Your task to perform on an android device: Search for "asus zenbook" on walmart, select the first entry, add it to the cart, then select checkout. Image 0: 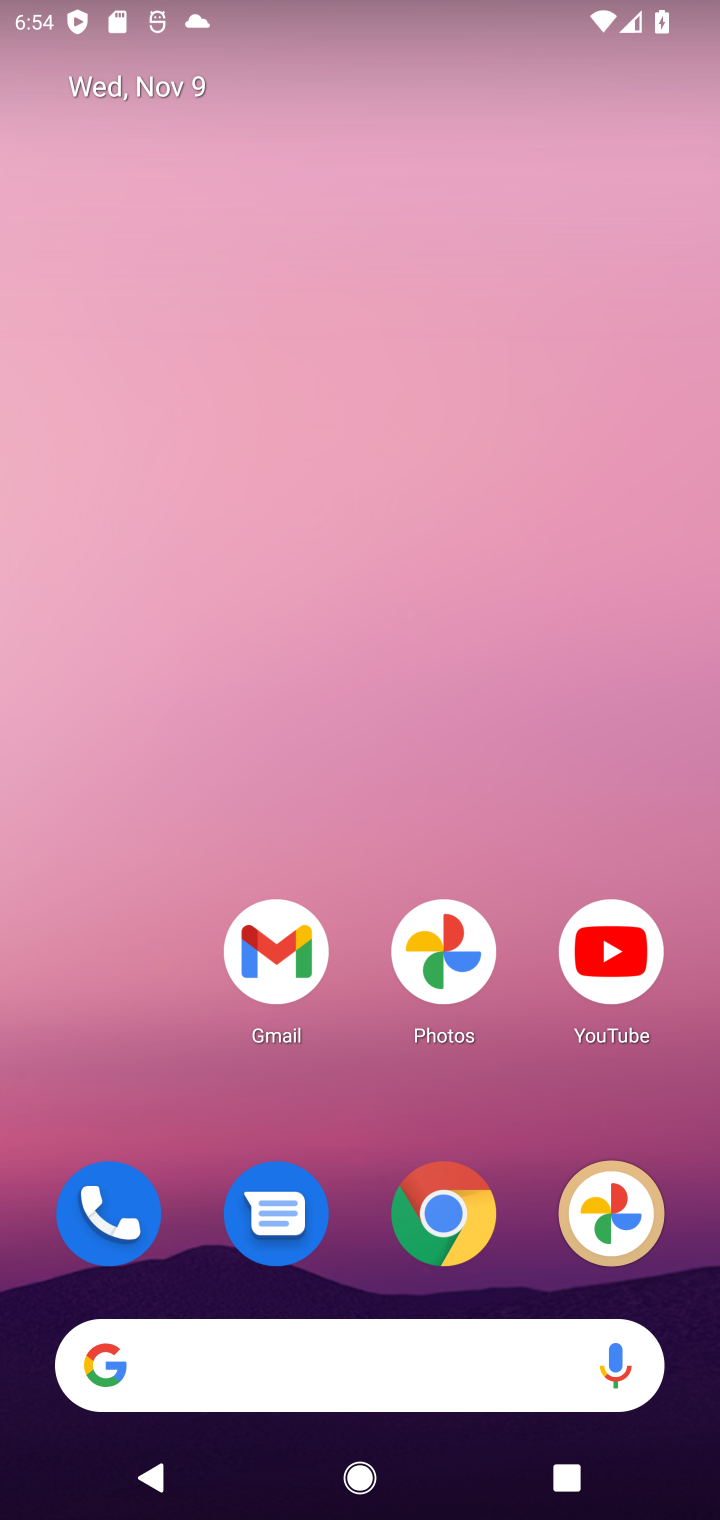
Step 0: click (467, 1234)
Your task to perform on an android device: Search for "asus zenbook" on walmart, select the first entry, add it to the cart, then select checkout. Image 1: 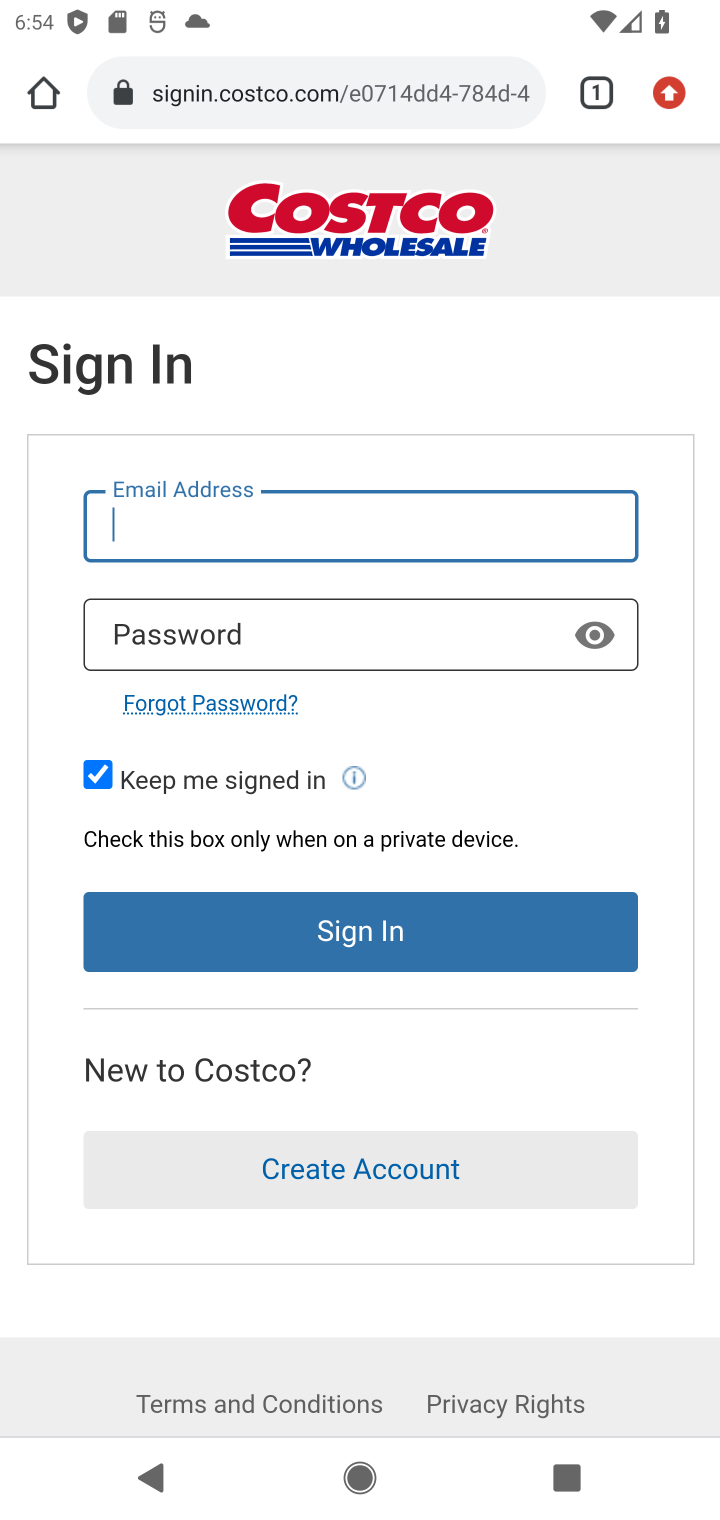
Step 1: click (260, 72)
Your task to perform on an android device: Search for "asus zenbook" on walmart, select the first entry, add it to the cart, then select checkout. Image 2: 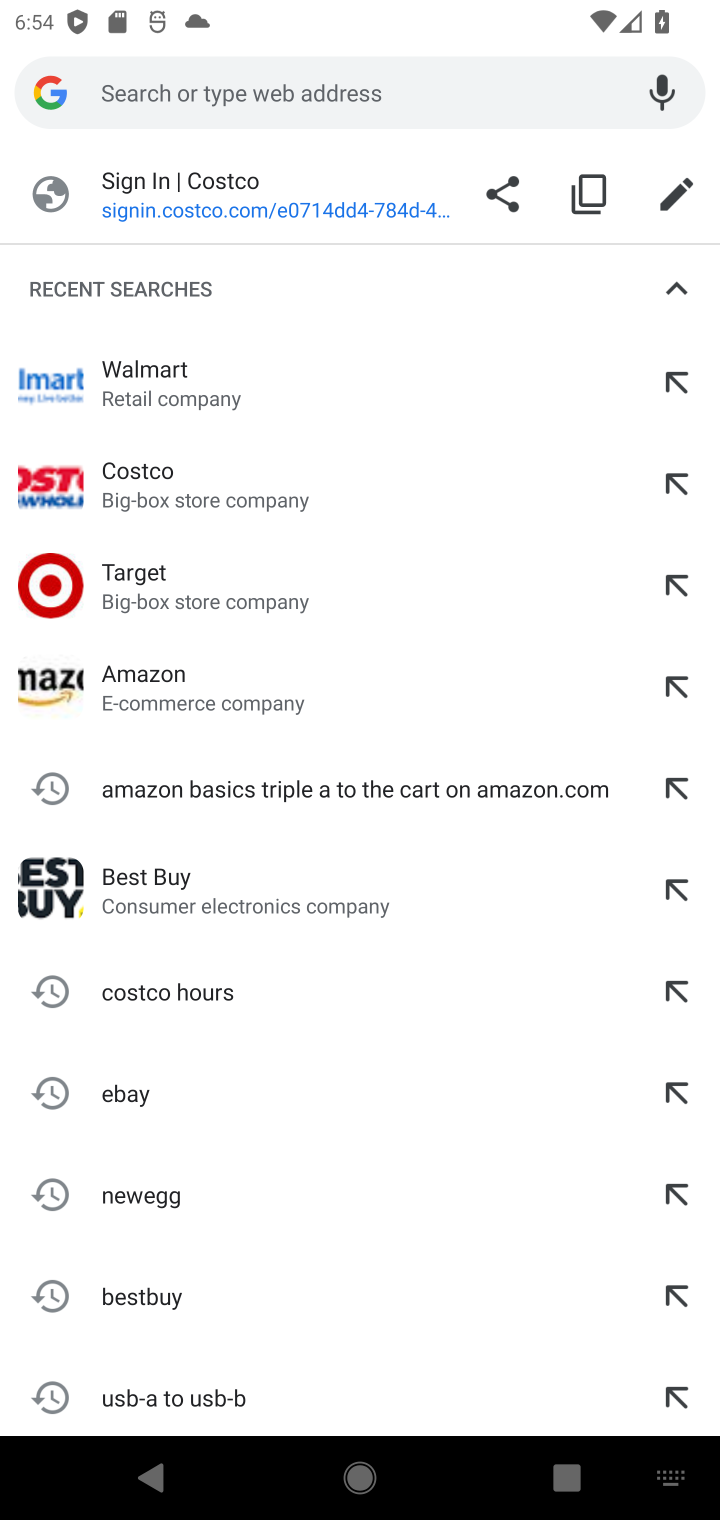
Step 2: type "wal"
Your task to perform on an android device: Search for "asus zenbook" on walmart, select the first entry, add it to the cart, then select checkout. Image 3: 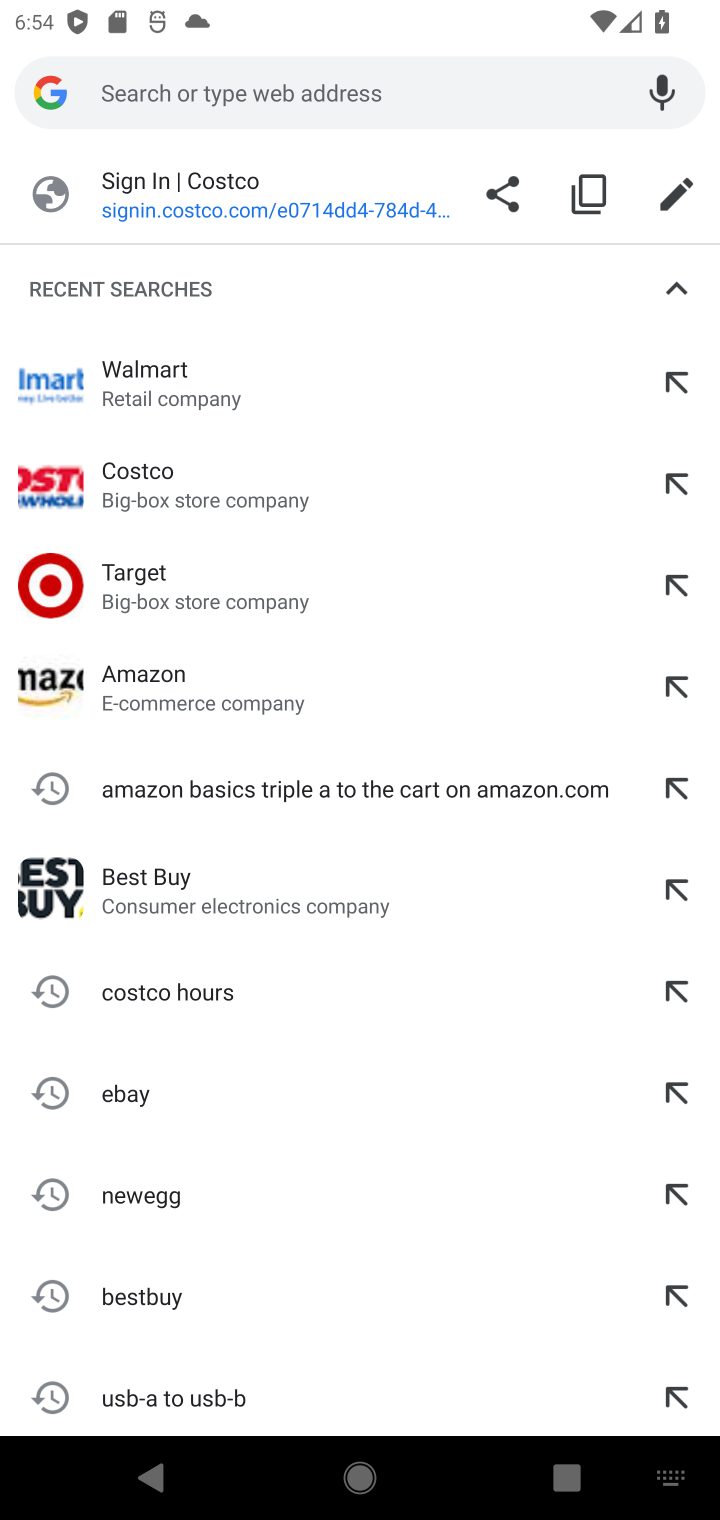
Step 3: click (139, 377)
Your task to perform on an android device: Search for "asus zenbook" on walmart, select the first entry, add it to the cart, then select checkout. Image 4: 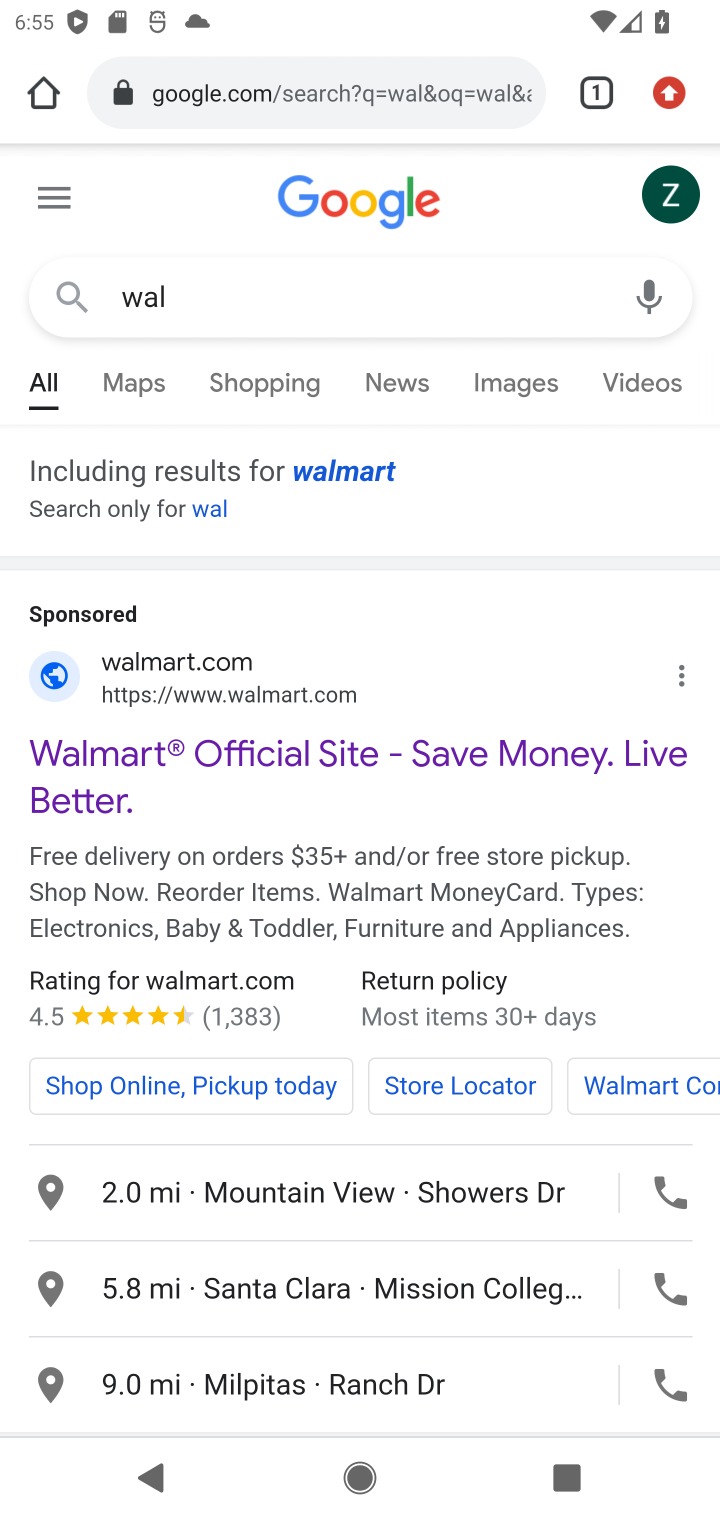
Step 4: drag from (268, 813) to (313, 231)
Your task to perform on an android device: Search for "asus zenbook" on walmart, select the first entry, add it to the cart, then select checkout. Image 5: 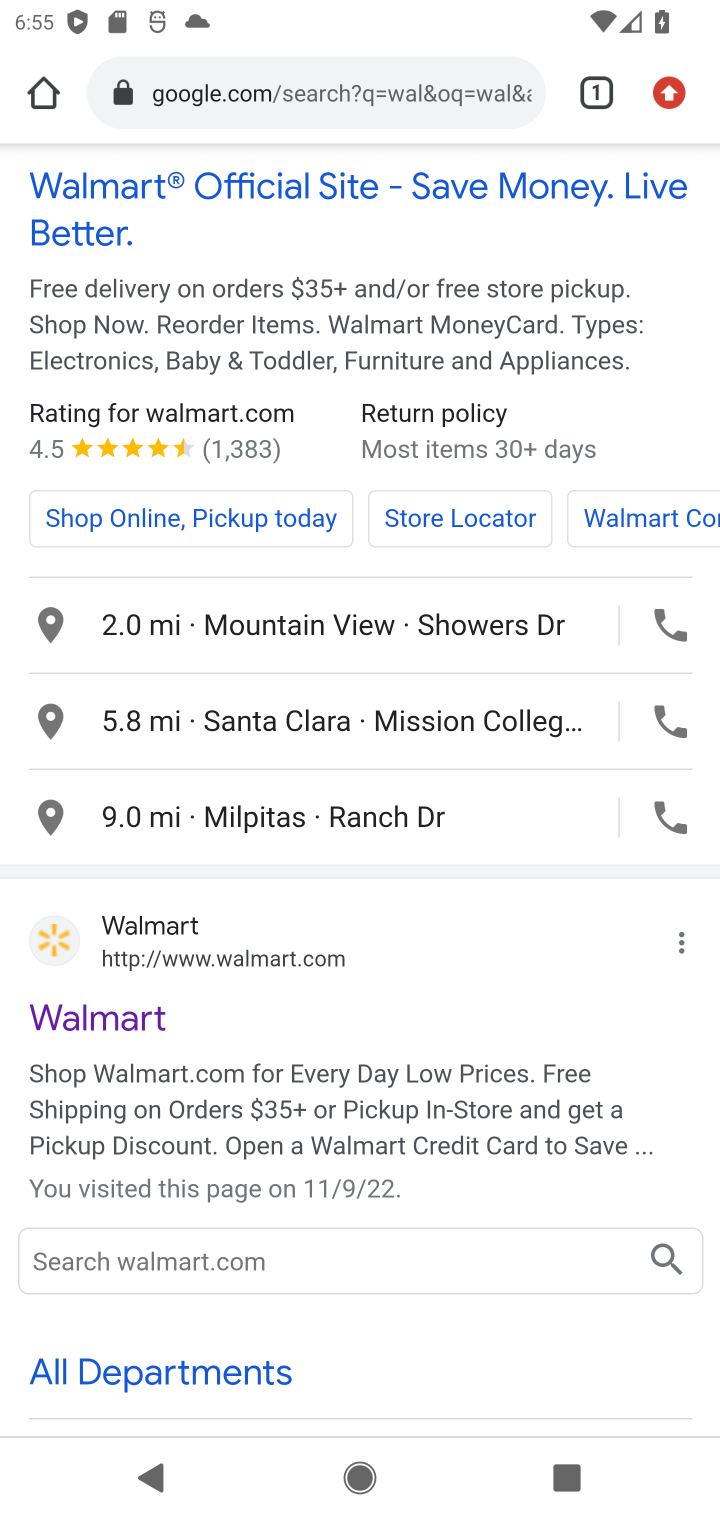
Step 5: click (124, 1006)
Your task to perform on an android device: Search for "asus zenbook" on walmart, select the first entry, add it to the cart, then select checkout. Image 6: 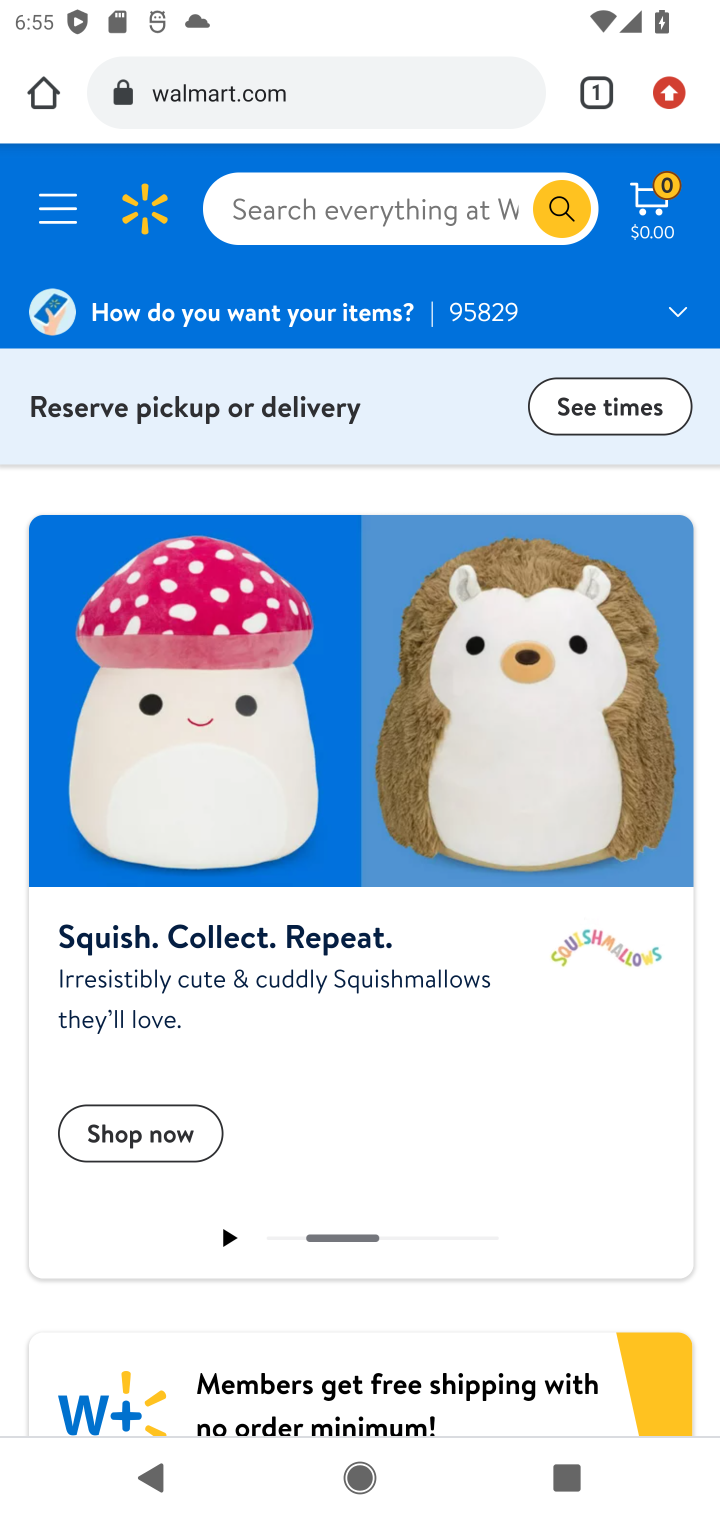
Step 6: click (358, 221)
Your task to perform on an android device: Search for "asus zenbook" on walmart, select the first entry, add it to the cart, then select checkout. Image 7: 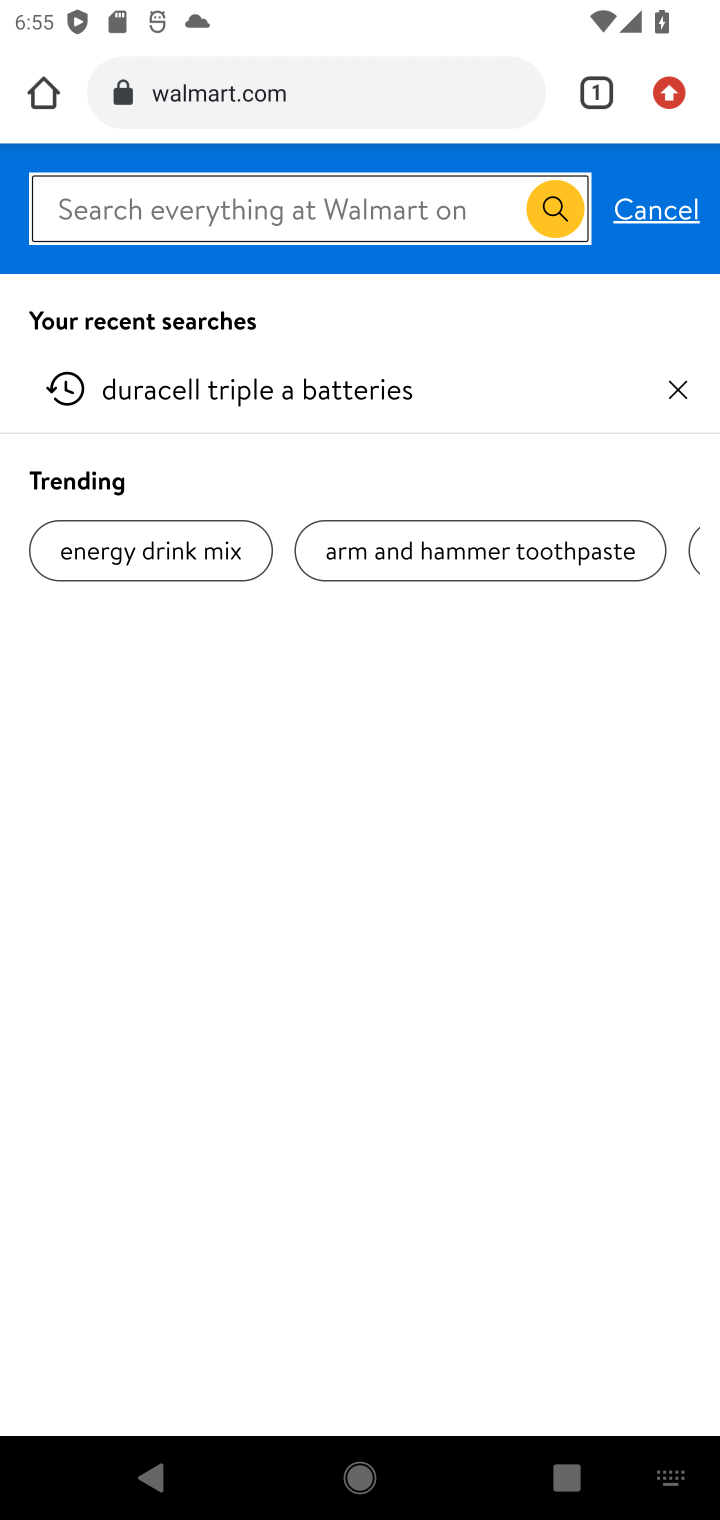
Step 7: type "asus zebook"
Your task to perform on an android device: Search for "asus zenbook" on walmart, select the first entry, add it to the cart, then select checkout. Image 8: 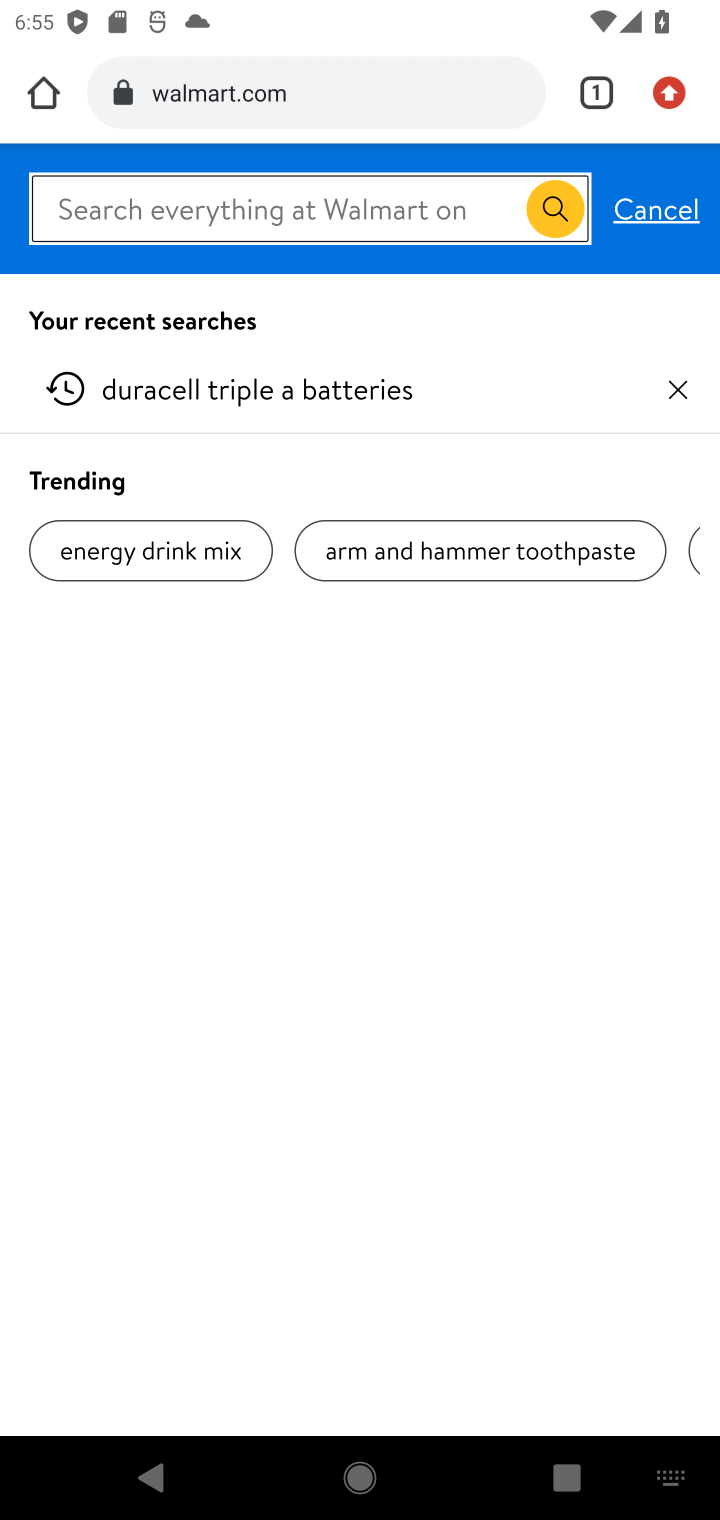
Step 8: type ""
Your task to perform on an android device: Search for "asus zenbook" on walmart, select the first entry, add it to the cart, then select checkout. Image 9: 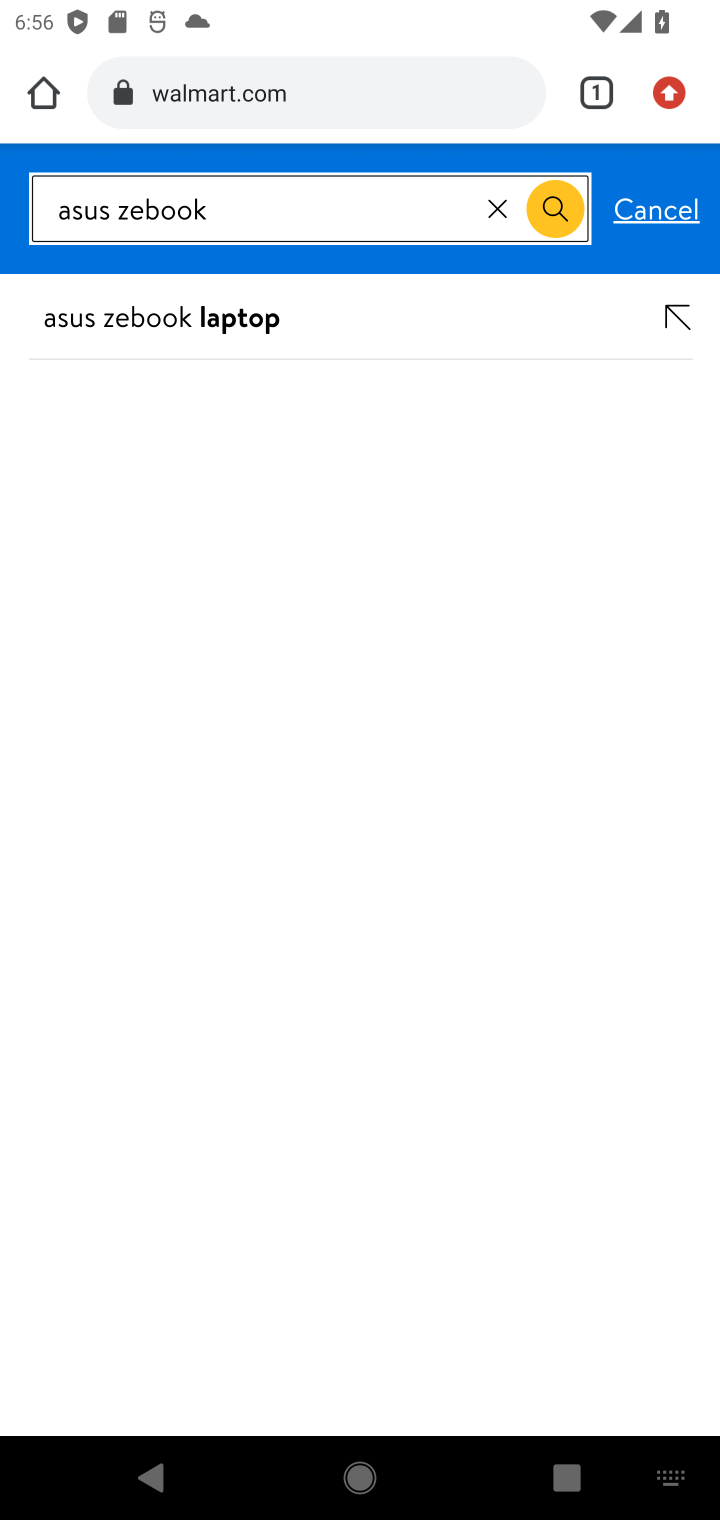
Step 9: click (159, 322)
Your task to perform on an android device: Search for "asus zenbook" on walmart, select the first entry, add it to the cart, then select checkout. Image 10: 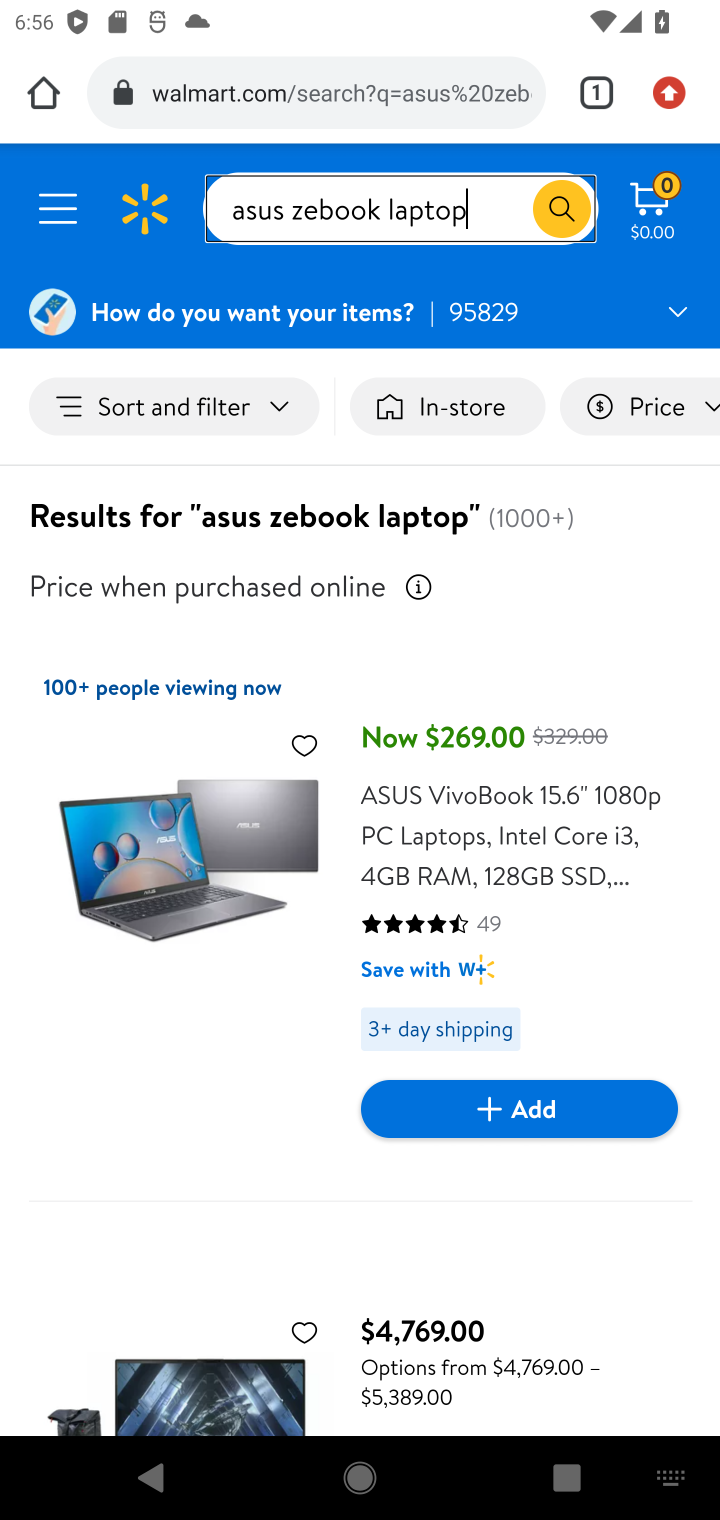
Step 10: drag from (214, 1180) to (434, 380)
Your task to perform on an android device: Search for "asus zenbook" on walmart, select the first entry, add it to the cart, then select checkout. Image 11: 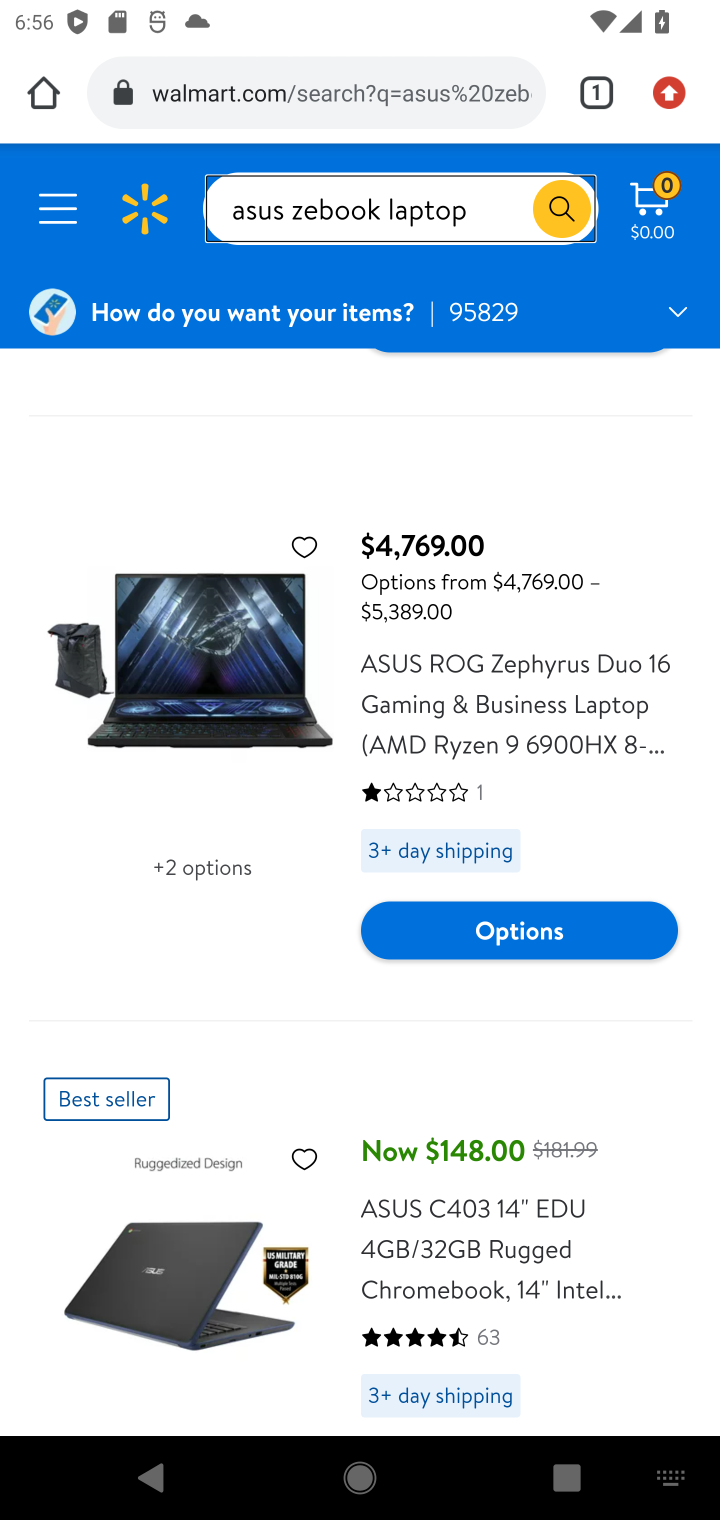
Step 11: click (438, 1224)
Your task to perform on an android device: Search for "asus zenbook" on walmart, select the first entry, add it to the cart, then select checkout. Image 12: 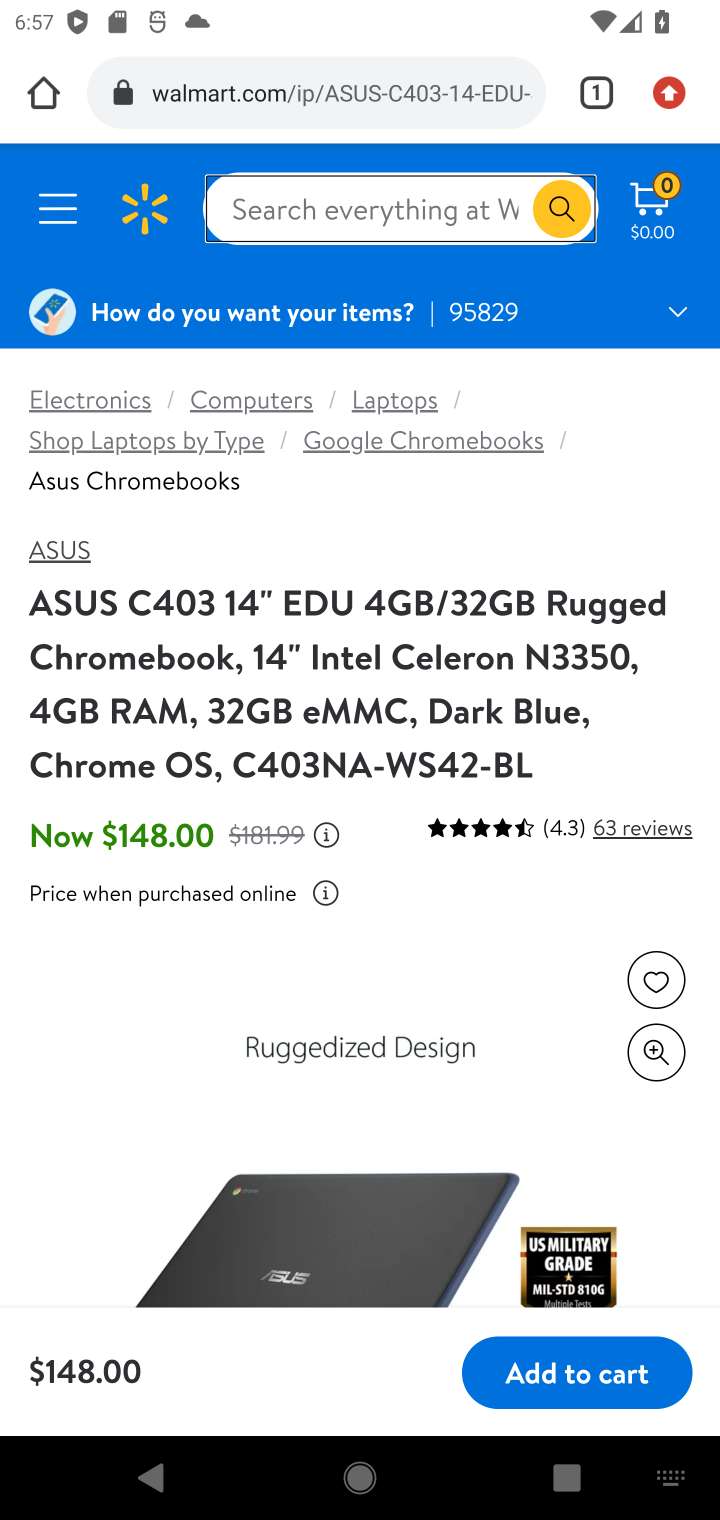
Step 12: click (638, 1381)
Your task to perform on an android device: Search for "asus zenbook" on walmart, select the first entry, add it to the cart, then select checkout. Image 13: 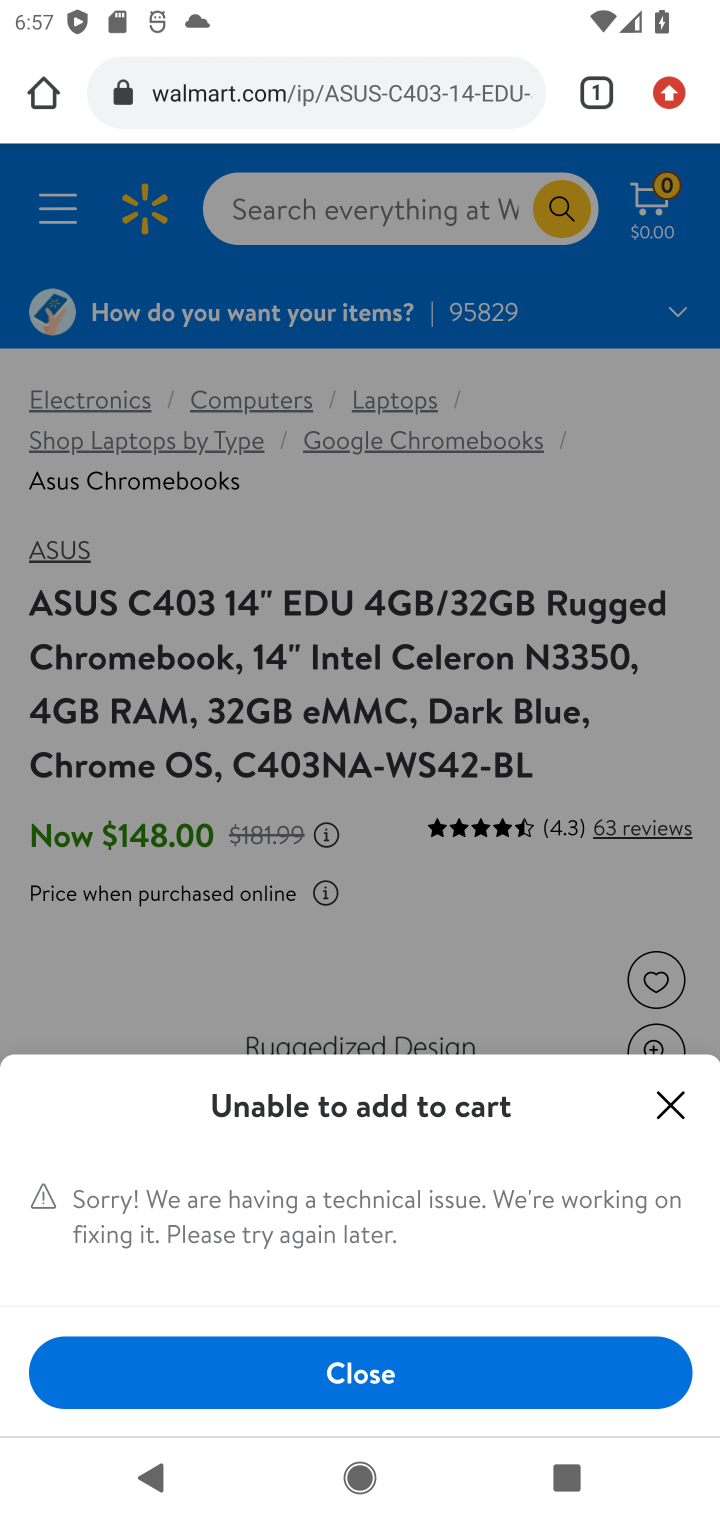
Step 13: click (660, 1100)
Your task to perform on an android device: Search for "asus zenbook" on walmart, select the first entry, add it to the cart, then select checkout. Image 14: 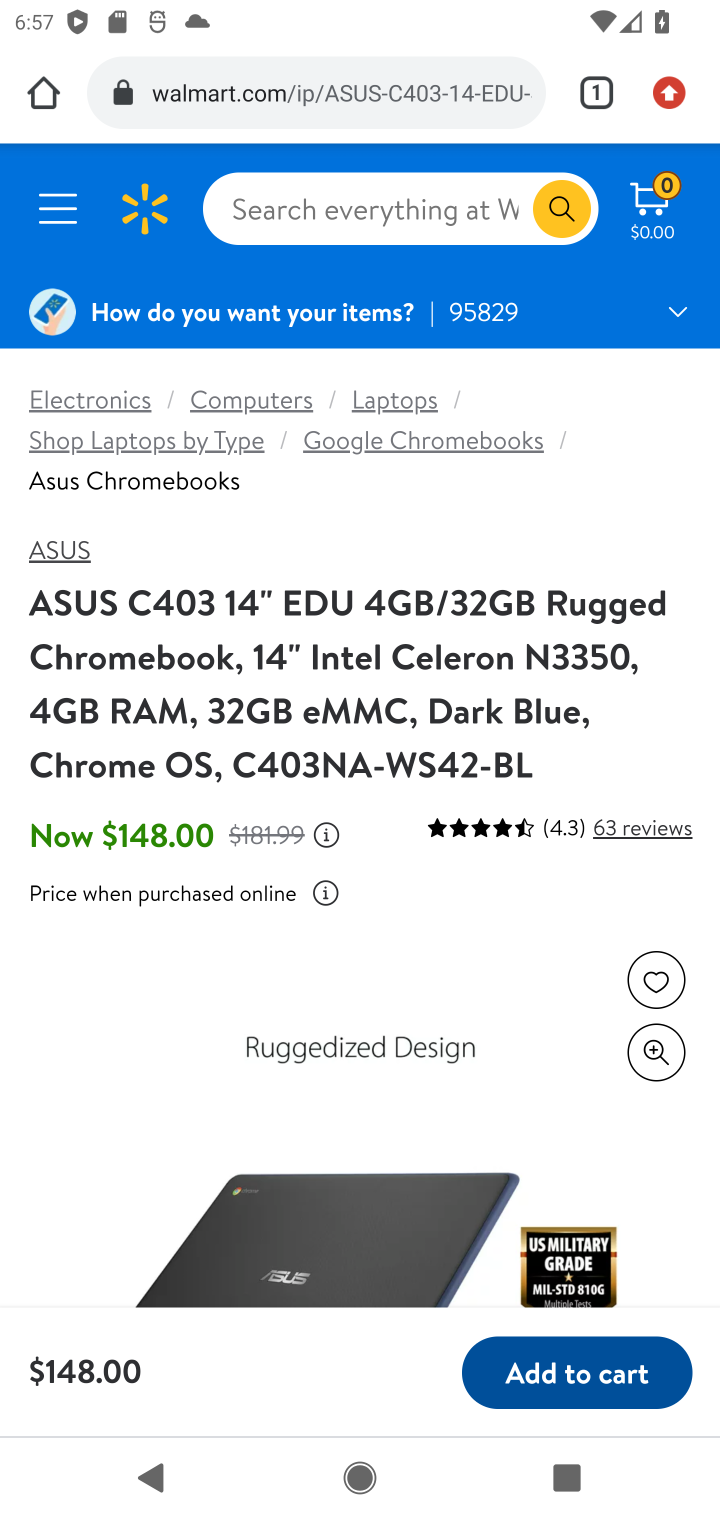
Step 14: click (666, 212)
Your task to perform on an android device: Search for "asus zenbook" on walmart, select the first entry, add it to the cart, then select checkout. Image 15: 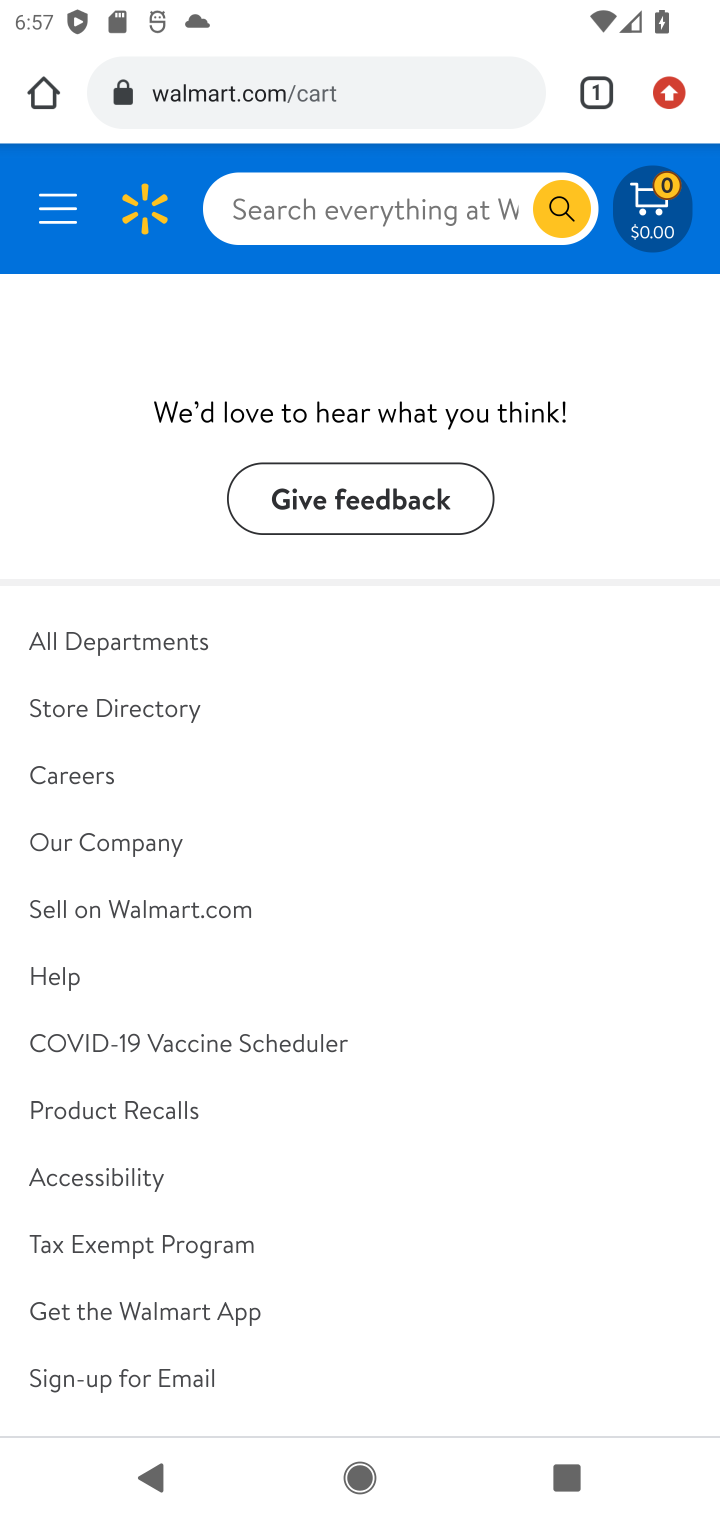
Step 15: task complete